Your task to perform on an android device: Open calendar and show me the second week of next month Image 0: 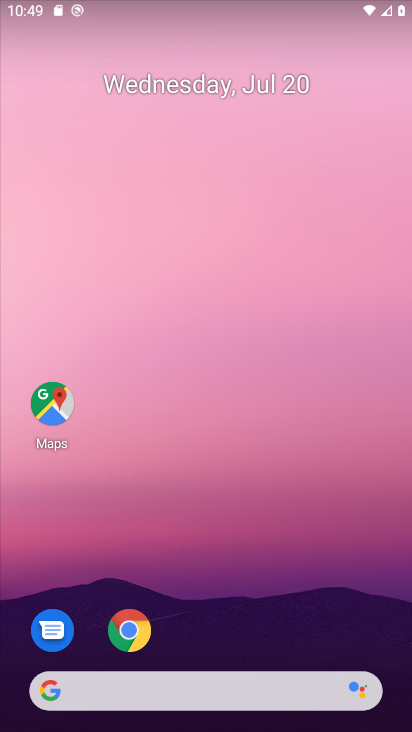
Step 0: drag from (273, 690) to (187, 188)
Your task to perform on an android device: Open calendar and show me the second week of next month Image 1: 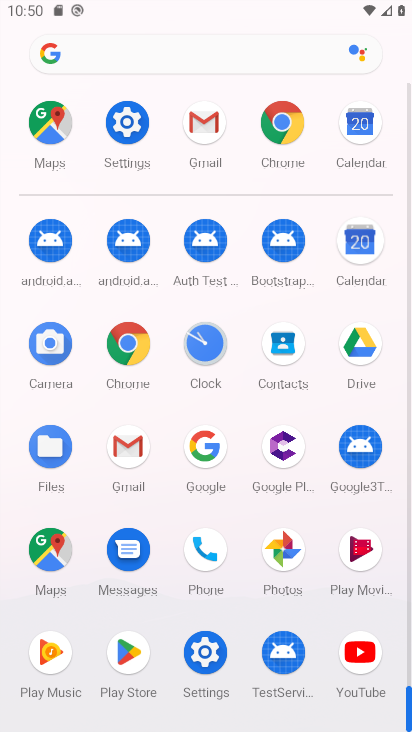
Step 1: click (358, 236)
Your task to perform on an android device: Open calendar and show me the second week of next month Image 2: 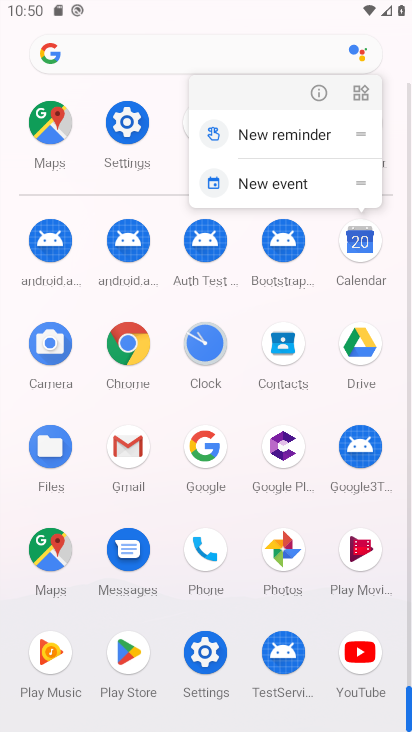
Step 2: click (358, 236)
Your task to perform on an android device: Open calendar and show me the second week of next month Image 3: 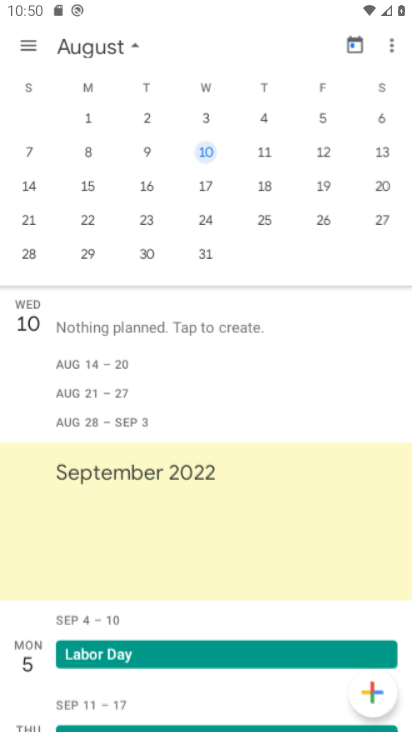
Step 3: click (358, 236)
Your task to perform on an android device: Open calendar and show me the second week of next month Image 4: 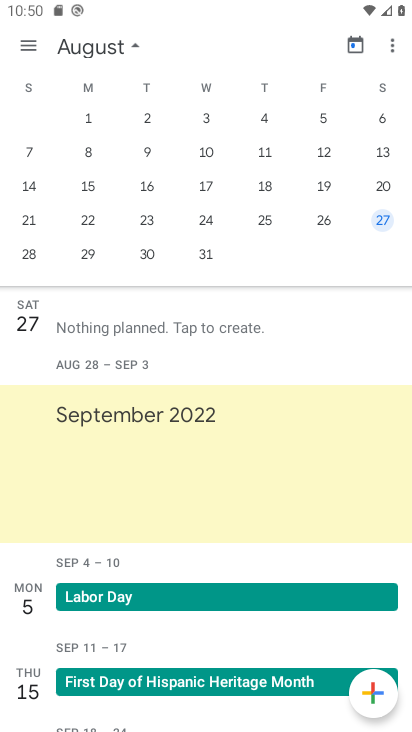
Step 4: click (206, 149)
Your task to perform on an android device: Open calendar and show me the second week of next month Image 5: 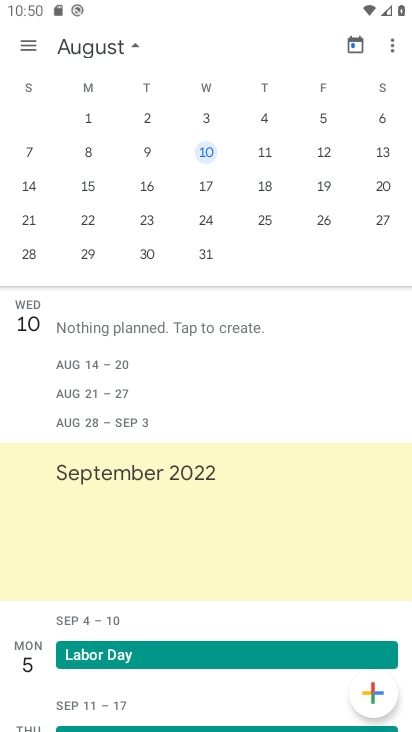
Step 5: click (205, 150)
Your task to perform on an android device: Open calendar and show me the second week of next month Image 6: 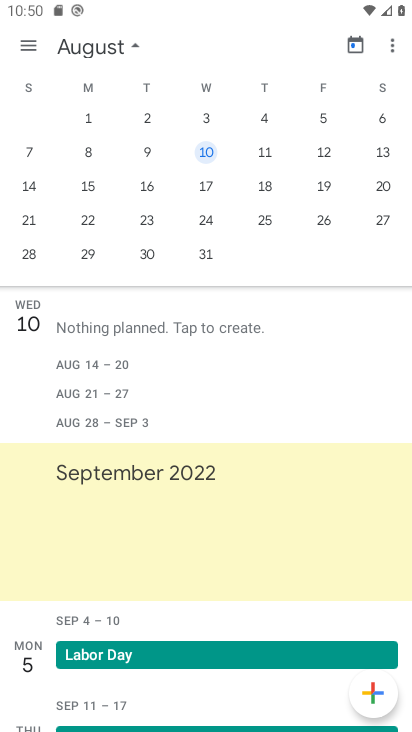
Step 6: click (205, 150)
Your task to perform on an android device: Open calendar and show me the second week of next month Image 7: 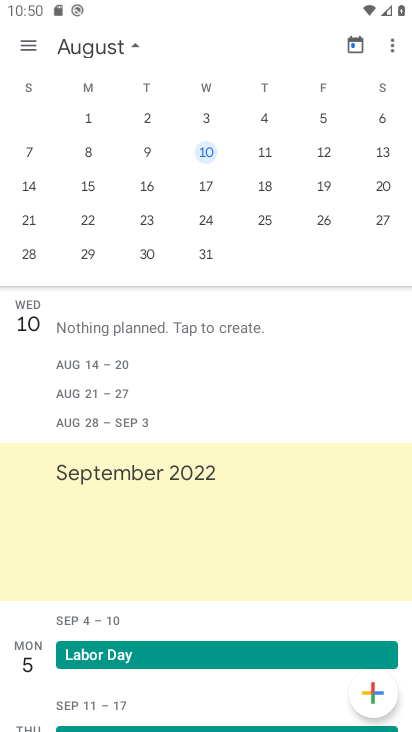
Step 7: click (205, 150)
Your task to perform on an android device: Open calendar and show me the second week of next month Image 8: 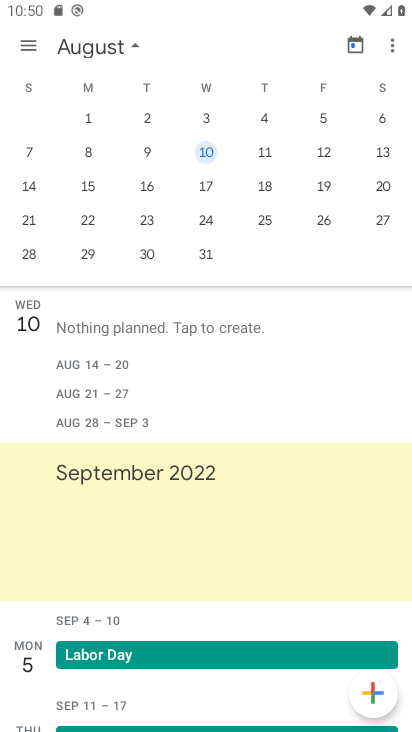
Step 8: press back button
Your task to perform on an android device: Open calendar and show me the second week of next month Image 9: 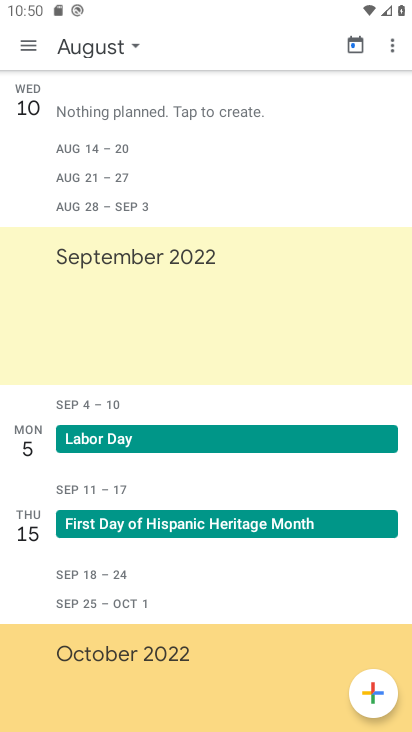
Step 9: press home button
Your task to perform on an android device: Open calendar and show me the second week of next month Image 10: 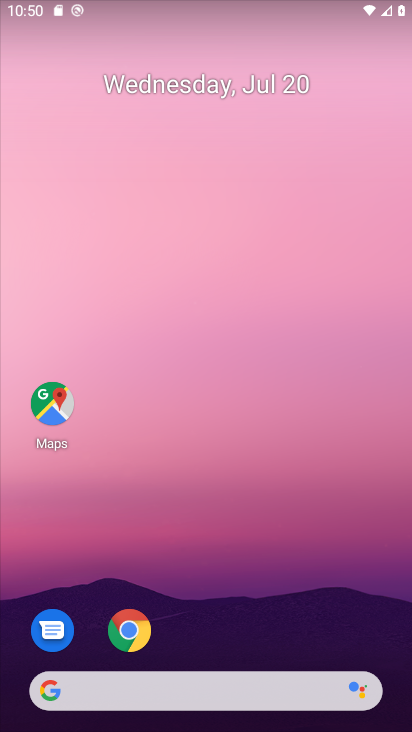
Step 10: drag from (267, 652) to (227, 161)
Your task to perform on an android device: Open calendar and show me the second week of next month Image 11: 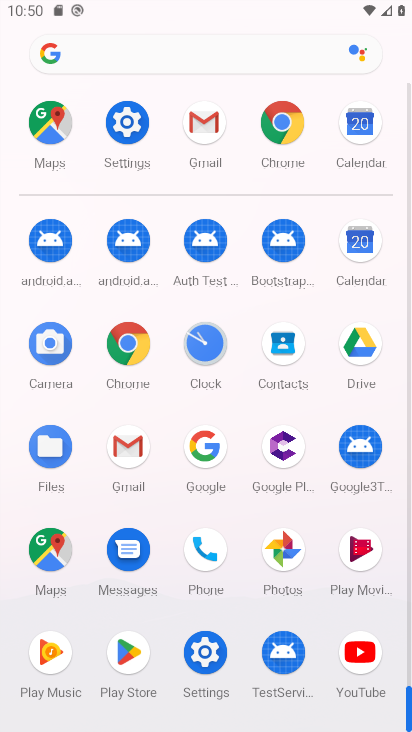
Step 11: click (351, 242)
Your task to perform on an android device: Open calendar and show me the second week of next month Image 12: 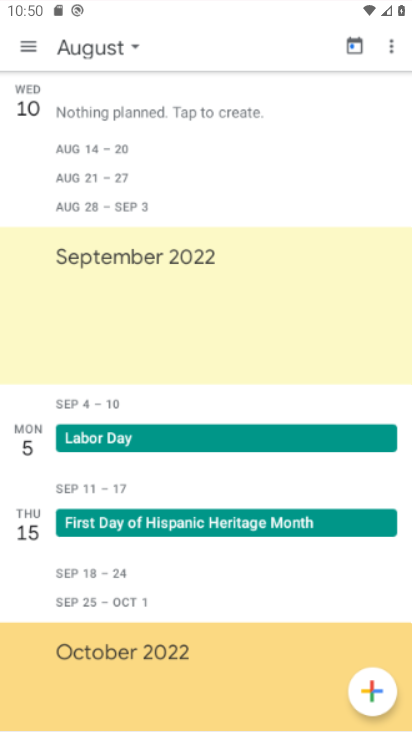
Step 12: click (351, 242)
Your task to perform on an android device: Open calendar and show me the second week of next month Image 13: 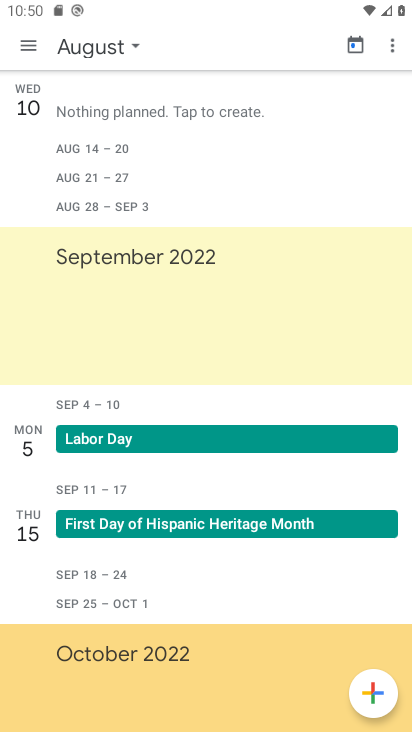
Step 13: click (351, 242)
Your task to perform on an android device: Open calendar and show me the second week of next month Image 14: 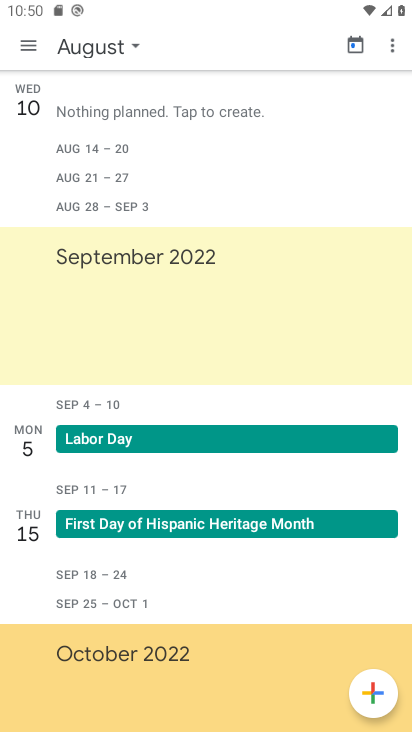
Step 14: click (131, 50)
Your task to perform on an android device: Open calendar and show me the second week of next month Image 15: 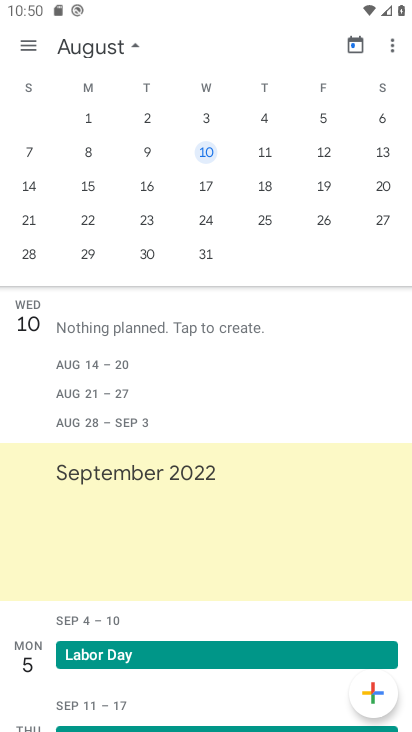
Step 15: click (262, 150)
Your task to perform on an android device: Open calendar and show me the second week of next month Image 16: 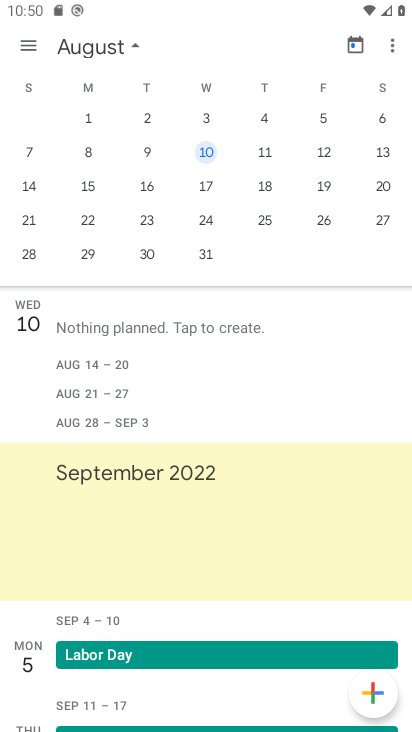
Step 16: click (262, 150)
Your task to perform on an android device: Open calendar and show me the second week of next month Image 17: 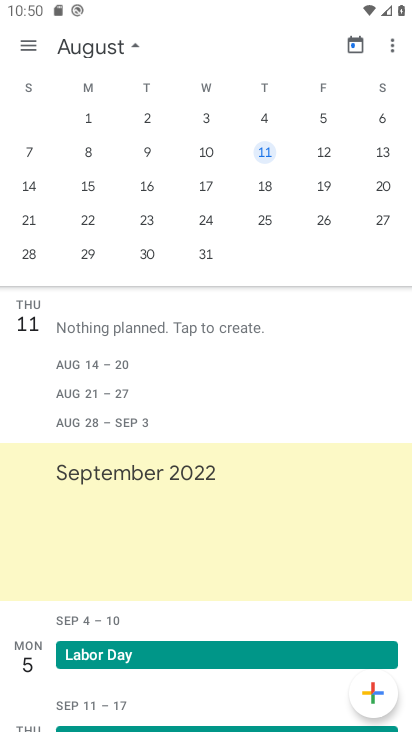
Step 17: click (264, 149)
Your task to perform on an android device: Open calendar and show me the second week of next month Image 18: 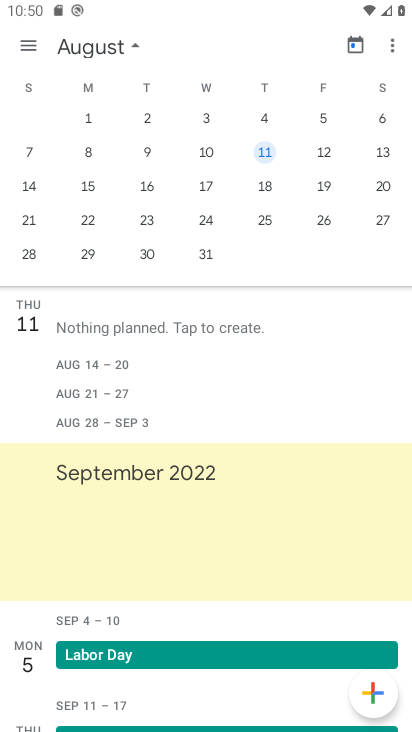
Step 18: click (265, 148)
Your task to perform on an android device: Open calendar and show me the second week of next month Image 19: 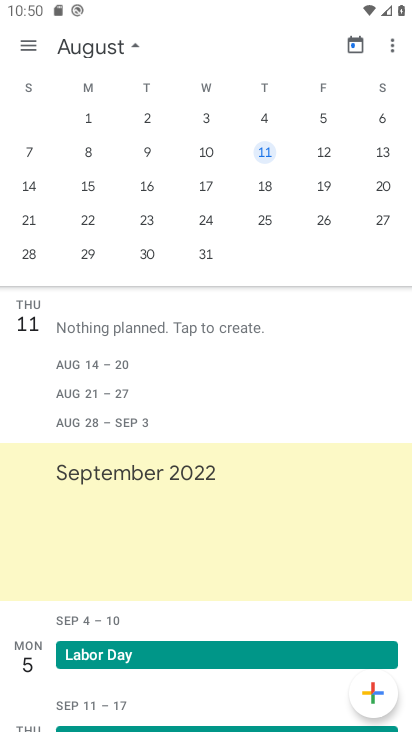
Step 19: task complete